Your task to perform on an android device: Open location settings Image 0: 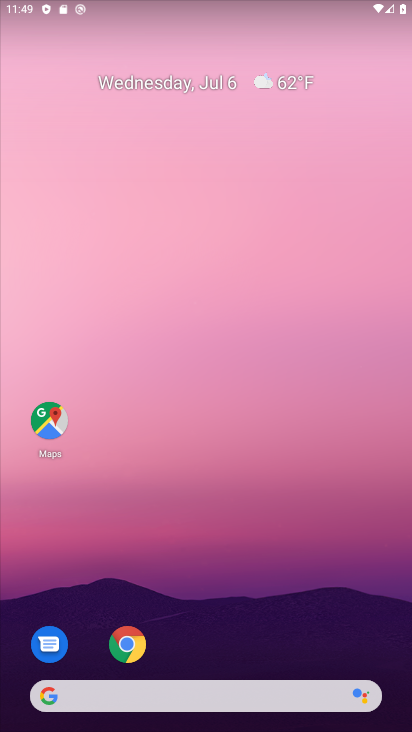
Step 0: click (133, 648)
Your task to perform on an android device: Open location settings Image 1: 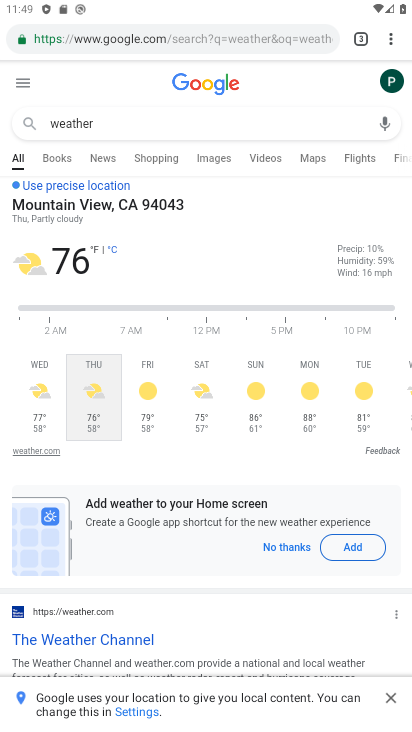
Step 1: click (388, 35)
Your task to perform on an android device: Open location settings Image 2: 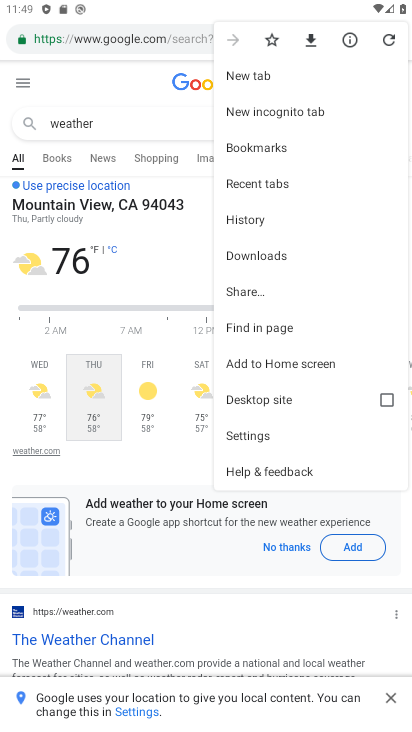
Step 2: click (249, 434)
Your task to perform on an android device: Open location settings Image 3: 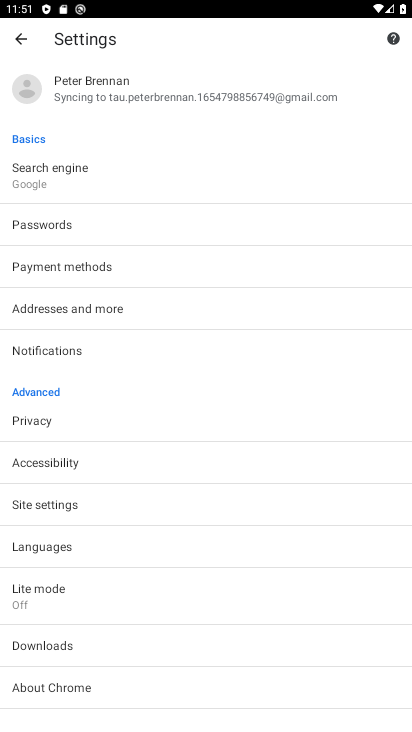
Step 3: task complete